Your task to perform on an android device: Turn off the flashlight Image 0: 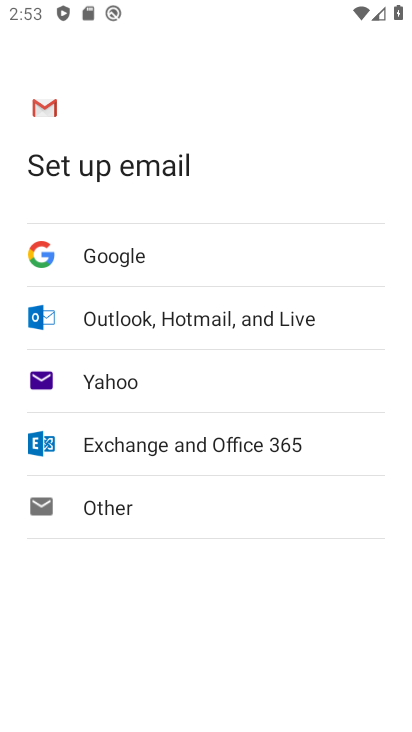
Step 0: drag from (341, 9) to (213, 270)
Your task to perform on an android device: Turn off the flashlight Image 1: 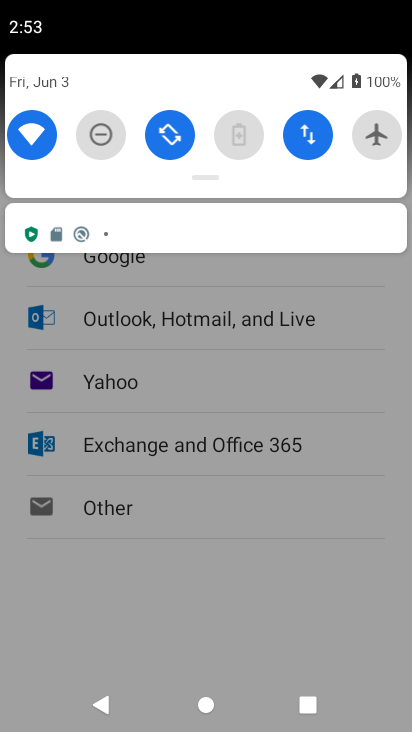
Step 1: drag from (213, 270) to (115, 648)
Your task to perform on an android device: Turn off the flashlight Image 2: 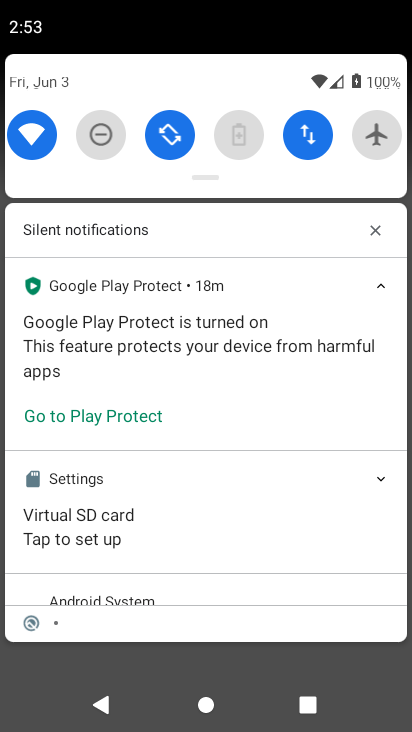
Step 2: drag from (201, 162) to (85, 522)
Your task to perform on an android device: Turn off the flashlight Image 3: 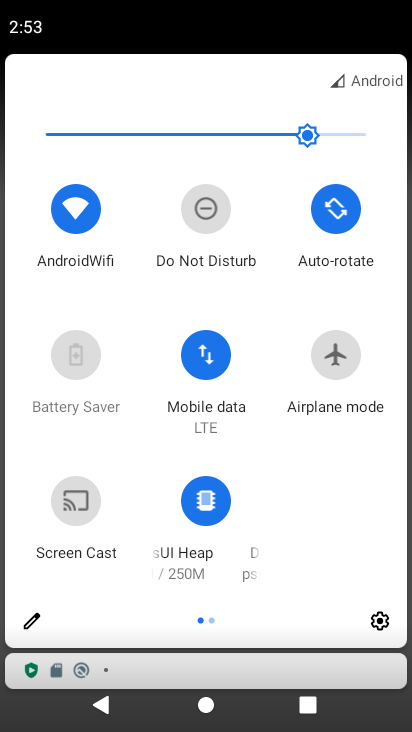
Step 3: click (26, 622)
Your task to perform on an android device: Turn off the flashlight Image 4: 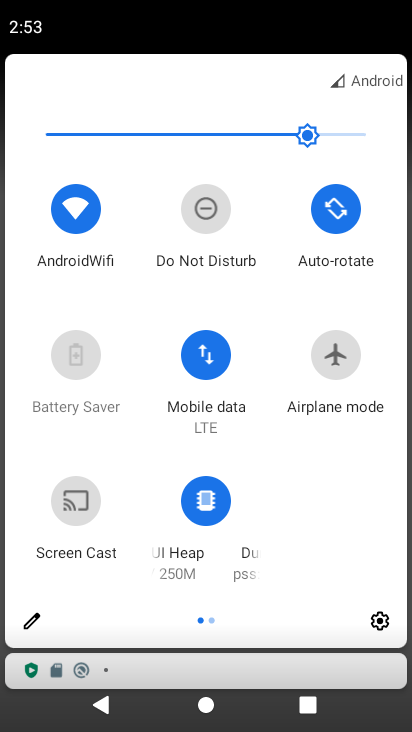
Step 4: click (26, 622)
Your task to perform on an android device: Turn off the flashlight Image 5: 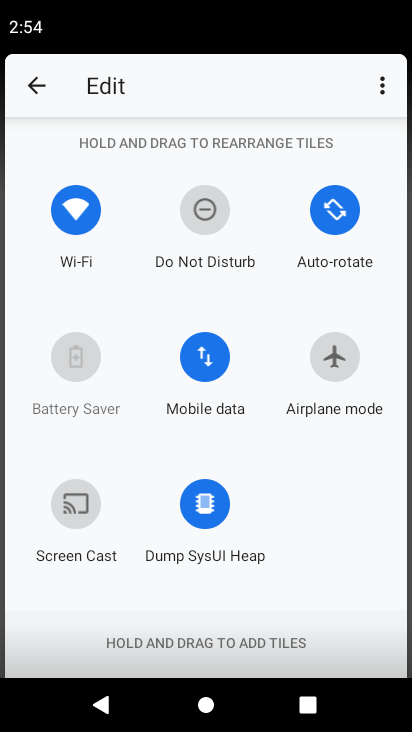
Step 5: task complete